Your task to perform on an android device: change notification settings in the gmail app Image 0: 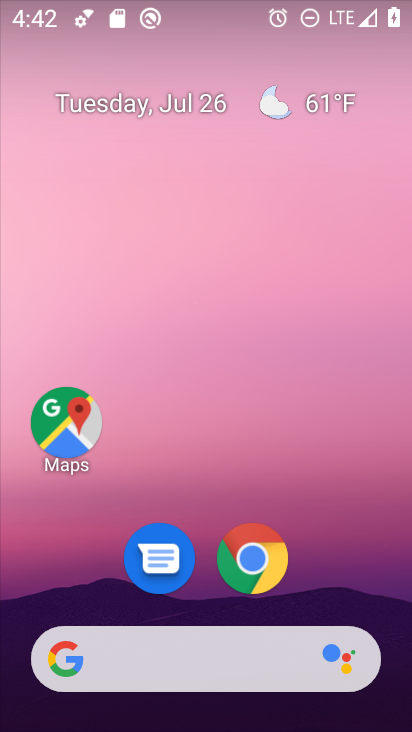
Step 0: drag from (153, 404) to (211, 10)
Your task to perform on an android device: change notification settings in the gmail app Image 1: 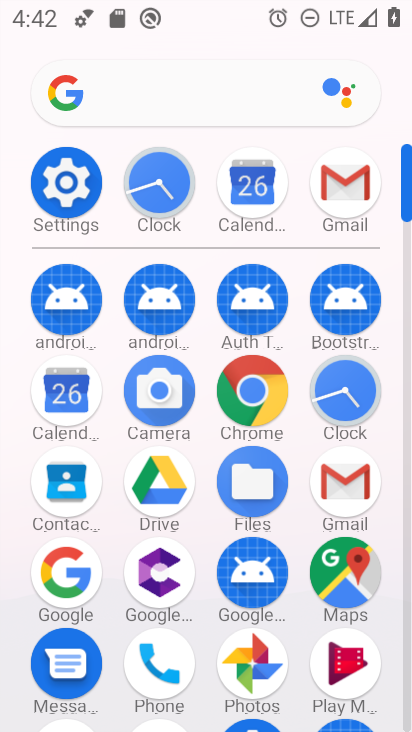
Step 1: click (351, 190)
Your task to perform on an android device: change notification settings in the gmail app Image 2: 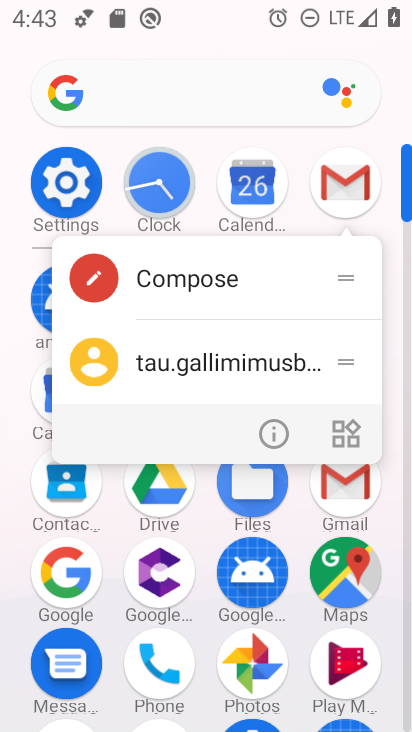
Step 2: click (279, 421)
Your task to perform on an android device: change notification settings in the gmail app Image 3: 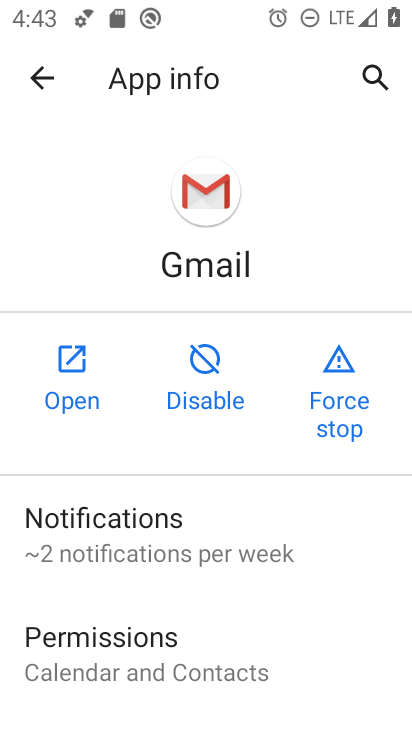
Step 3: click (118, 552)
Your task to perform on an android device: change notification settings in the gmail app Image 4: 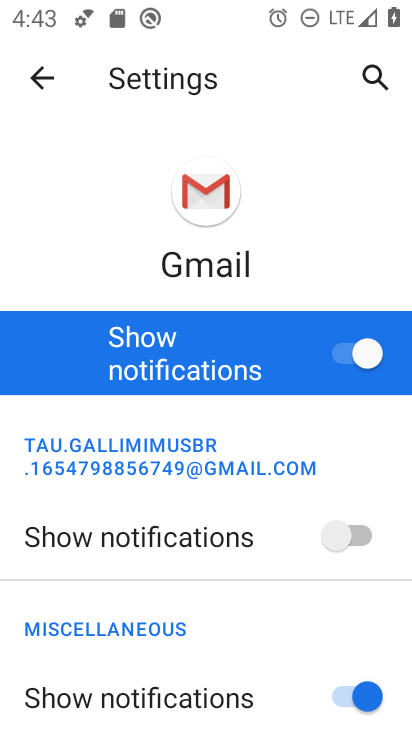
Step 4: click (372, 350)
Your task to perform on an android device: change notification settings in the gmail app Image 5: 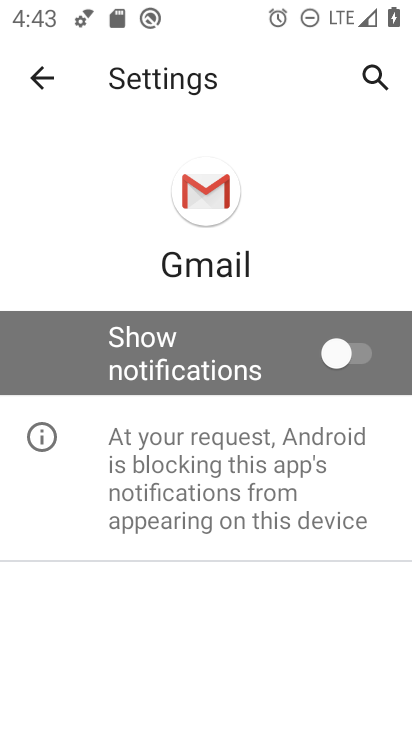
Step 5: task complete